Your task to perform on an android device: Open network settings Image 0: 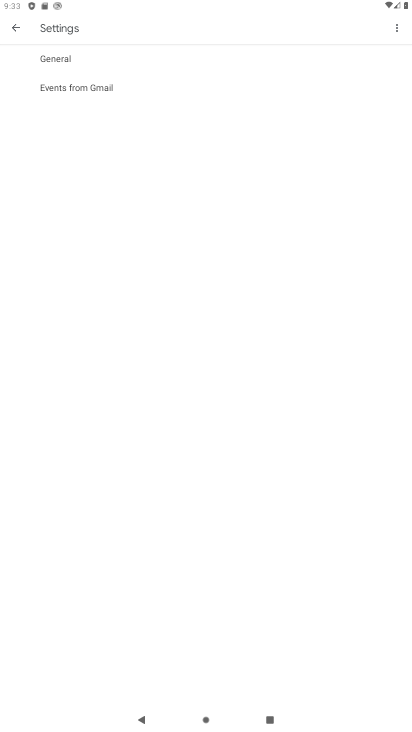
Step 0: press home button
Your task to perform on an android device: Open network settings Image 1: 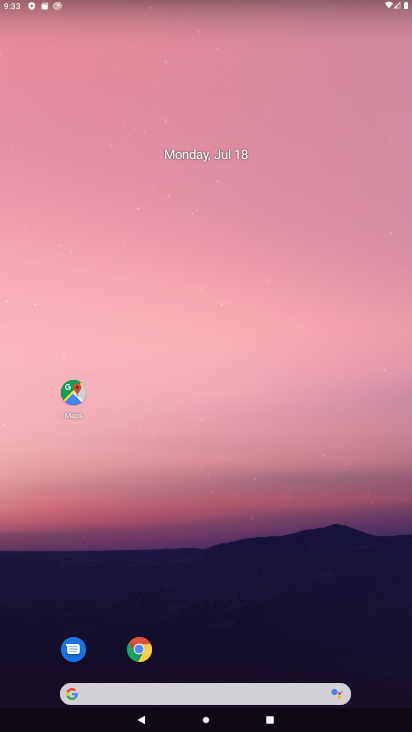
Step 1: drag from (271, 672) to (271, 182)
Your task to perform on an android device: Open network settings Image 2: 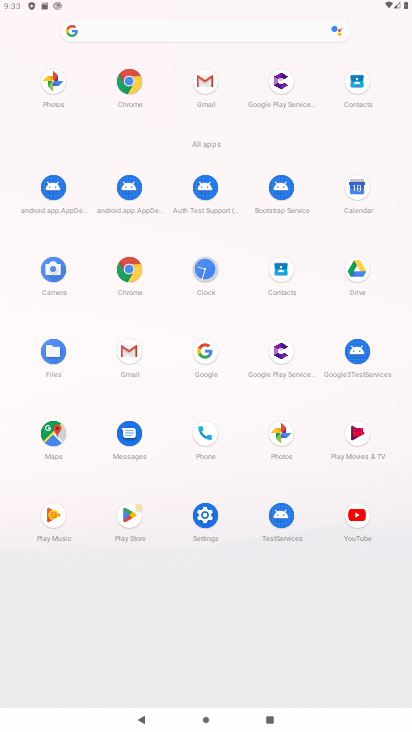
Step 2: click (199, 514)
Your task to perform on an android device: Open network settings Image 3: 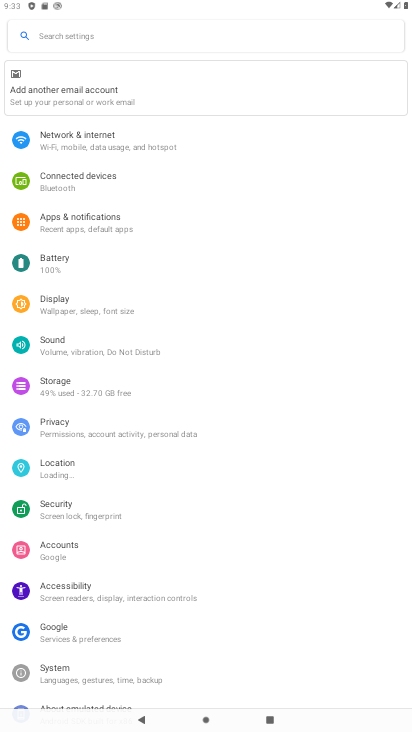
Step 3: click (131, 148)
Your task to perform on an android device: Open network settings Image 4: 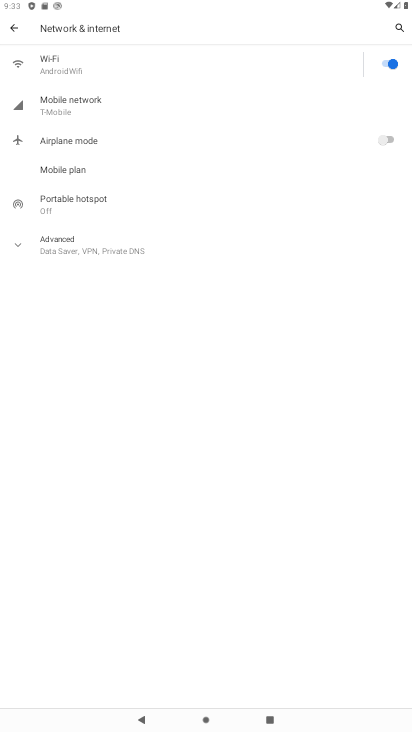
Step 4: click (115, 80)
Your task to perform on an android device: Open network settings Image 5: 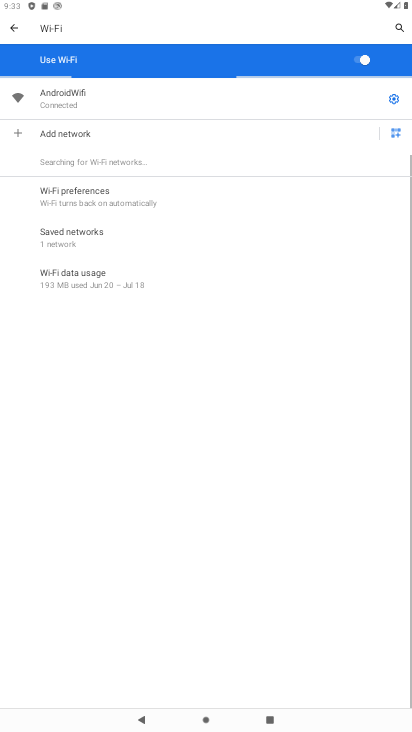
Step 5: task complete